Your task to perform on an android device: Open the phone app and click the voicemail tab. Image 0: 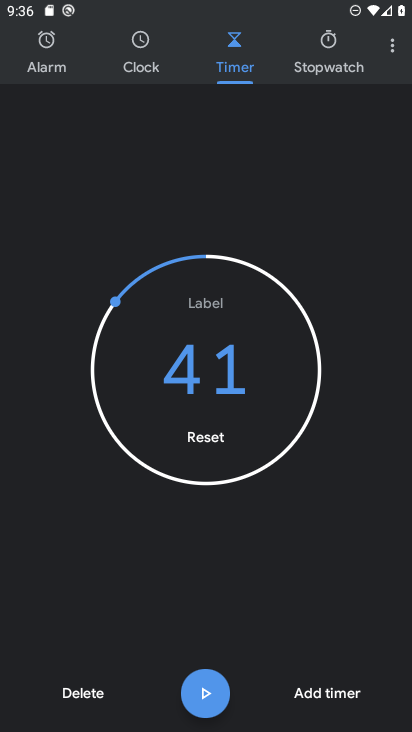
Step 0: press home button
Your task to perform on an android device: Open the phone app and click the voicemail tab. Image 1: 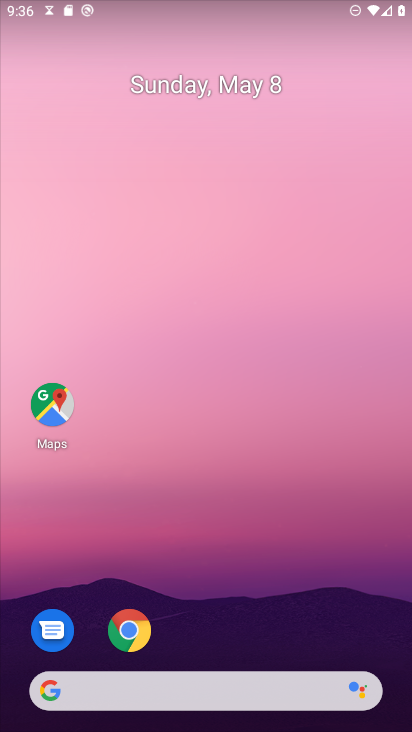
Step 1: drag from (203, 635) to (226, 196)
Your task to perform on an android device: Open the phone app and click the voicemail tab. Image 2: 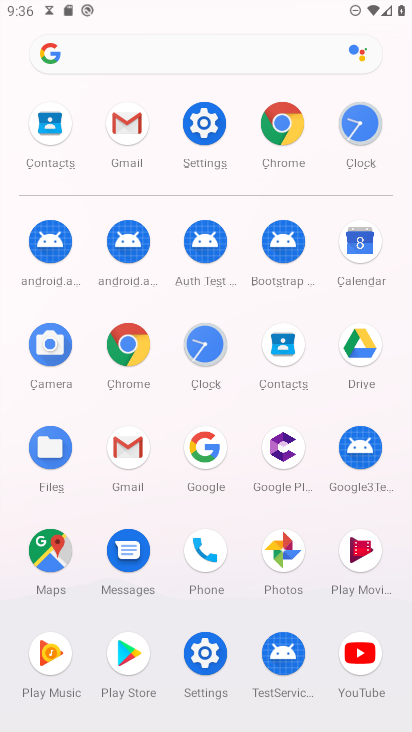
Step 2: click (192, 552)
Your task to perform on an android device: Open the phone app and click the voicemail tab. Image 3: 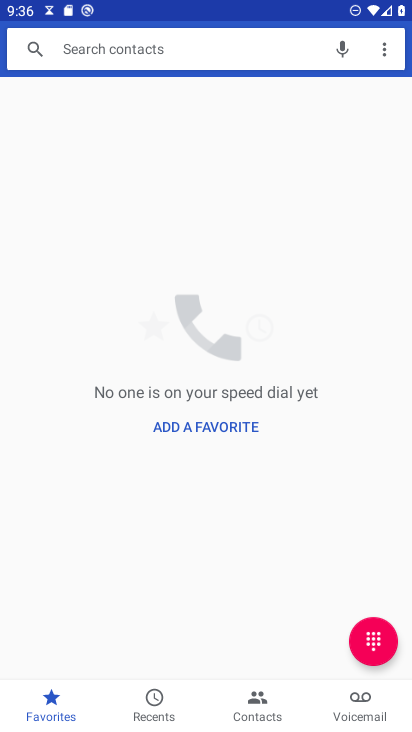
Step 3: click (361, 698)
Your task to perform on an android device: Open the phone app and click the voicemail tab. Image 4: 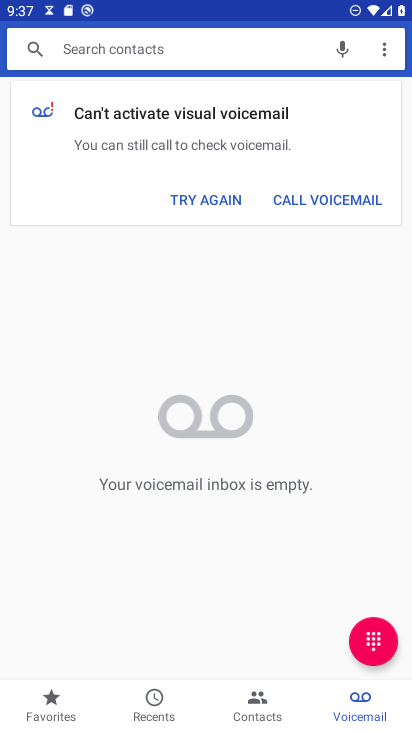
Step 4: task complete